Your task to perform on an android device: turn off location Image 0: 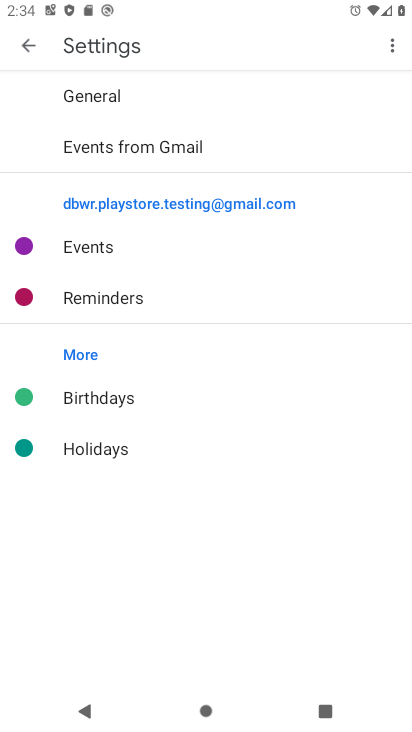
Step 0: press home button
Your task to perform on an android device: turn off location Image 1: 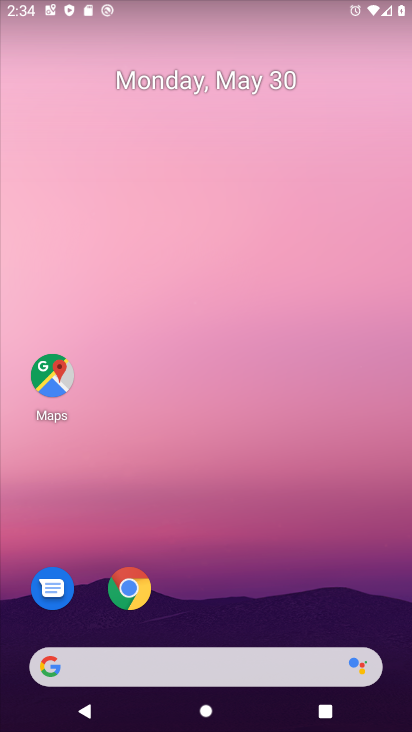
Step 1: drag from (295, 643) to (203, 86)
Your task to perform on an android device: turn off location Image 2: 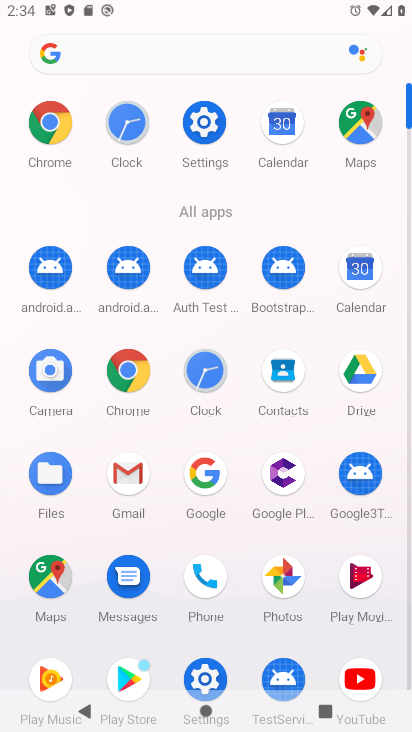
Step 2: click (208, 155)
Your task to perform on an android device: turn off location Image 3: 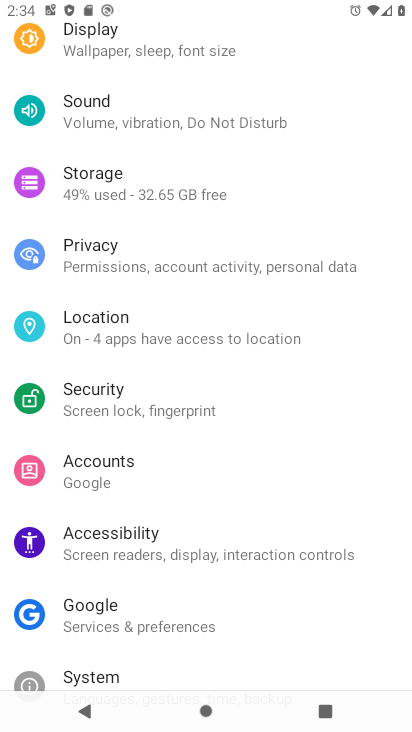
Step 3: click (140, 331)
Your task to perform on an android device: turn off location Image 4: 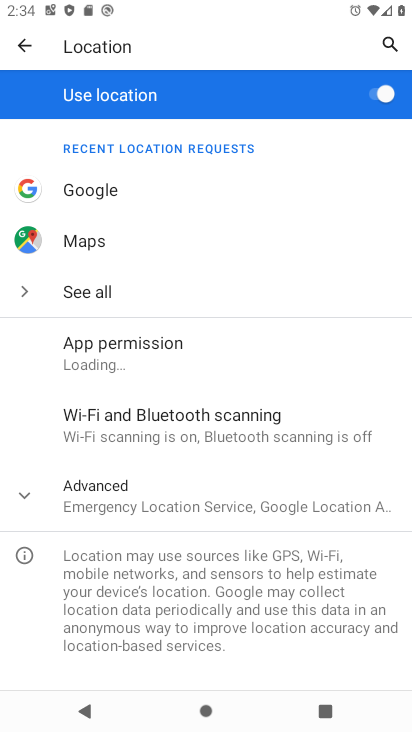
Step 4: click (370, 97)
Your task to perform on an android device: turn off location Image 5: 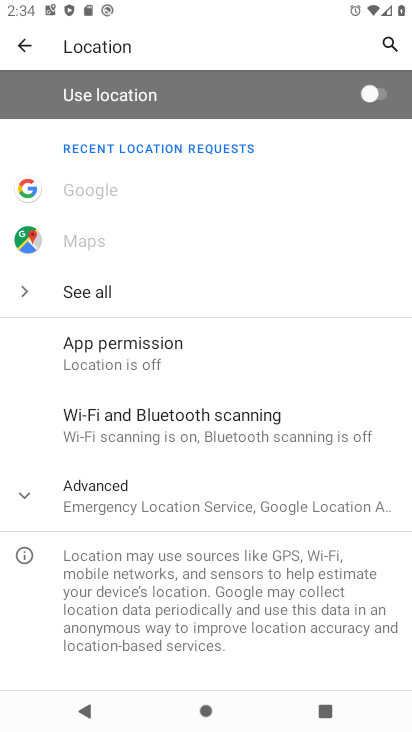
Step 5: task complete